Your task to perform on an android device: choose inbox layout in the gmail app Image 0: 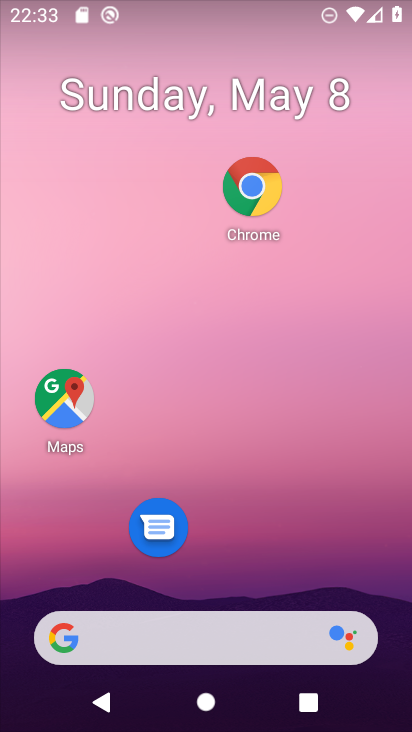
Step 0: drag from (297, 557) to (330, 289)
Your task to perform on an android device: choose inbox layout in the gmail app Image 1: 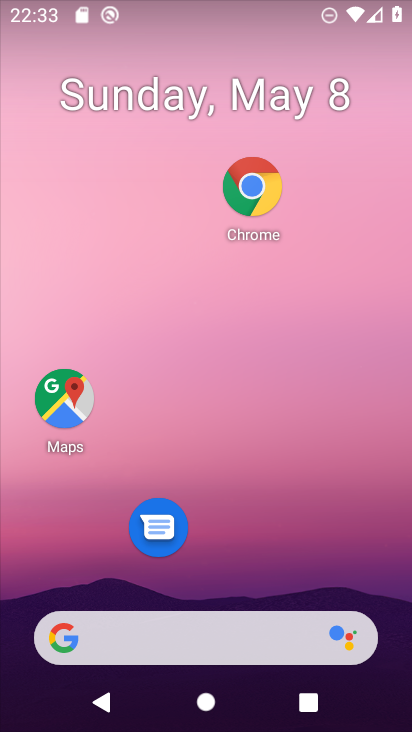
Step 1: drag from (293, 560) to (400, 284)
Your task to perform on an android device: choose inbox layout in the gmail app Image 2: 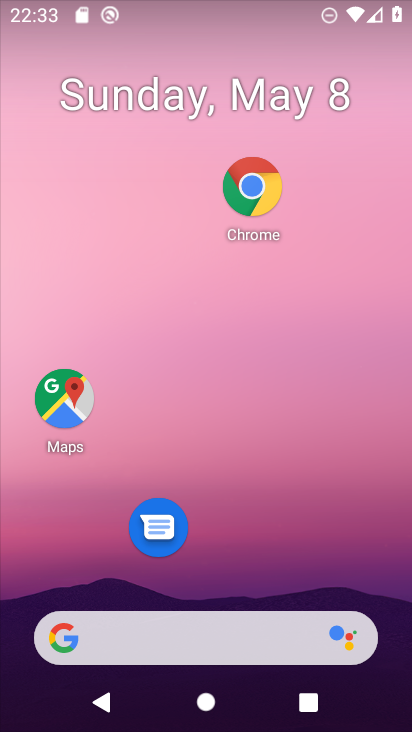
Step 2: drag from (221, 526) to (293, 274)
Your task to perform on an android device: choose inbox layout in the gmail app Image 3: 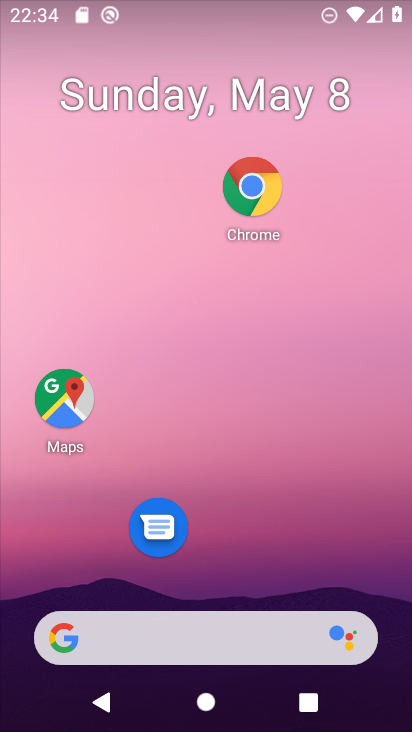
Step 3: drag from (278, 552) to (342, 130)
Your task to perform on an android device: choose inbox layout in the gmail app Image 4: 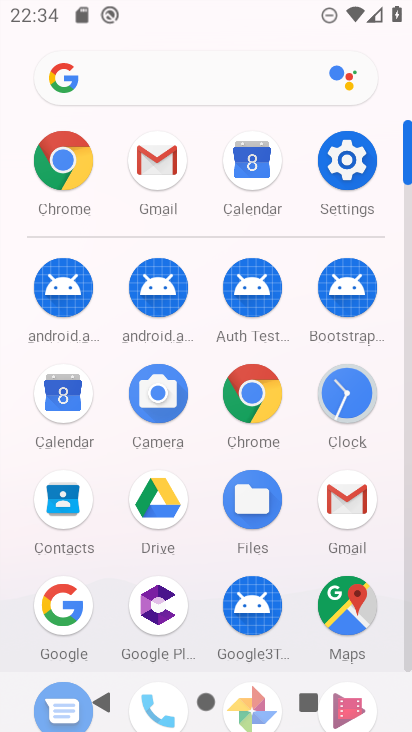
Step 4: click (363, 488)
Your task to perform on an android device: choose inbox layout in the gmail app Image 5: 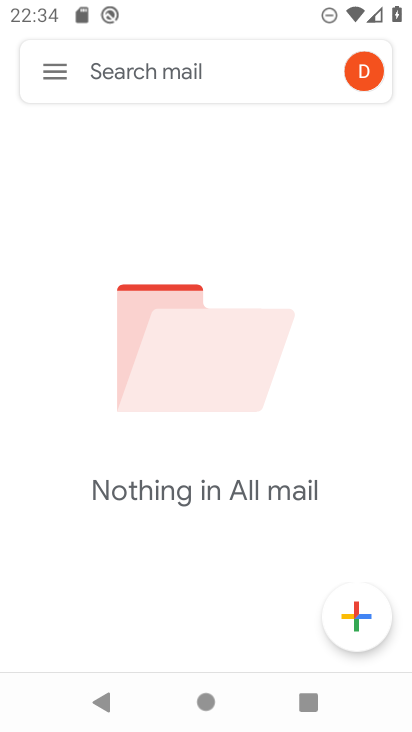
Step 5: click (60, 71)
Your task to perform on an android device: choose inbox layout in the gmail app Image 6: 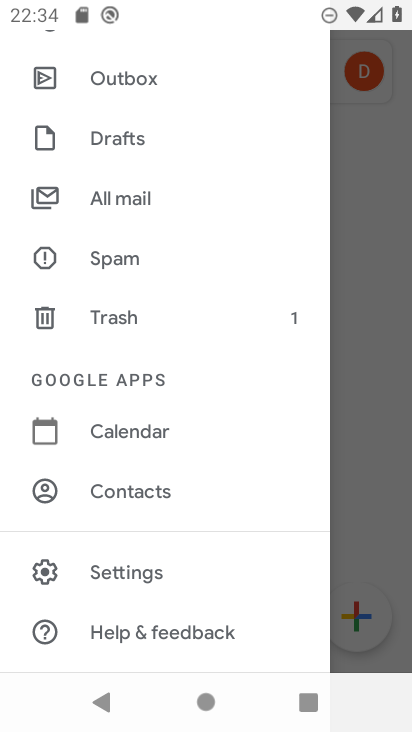
Step 6: click (148, 566)
Your task to perform on an android device: choose inbox layout in the gmail app Image 7: 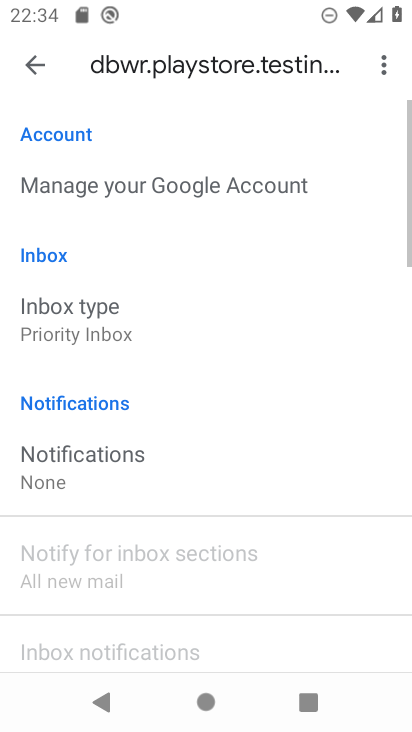
Step 7: click (113, 316)
Your task to perform on an android device: choose inbox layout in the gmail app Image 8: 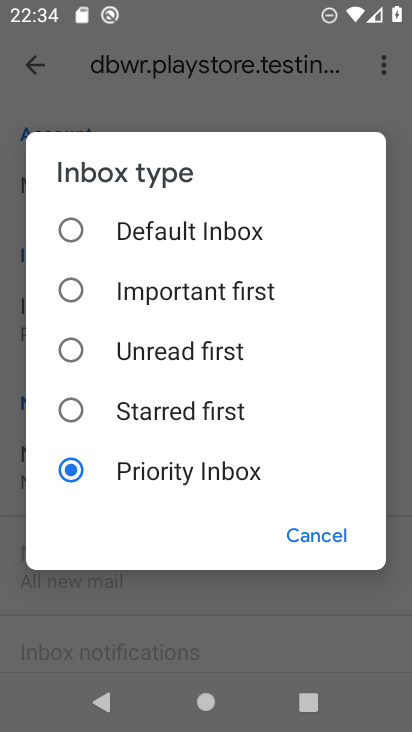
Step 8: task complete